Your task to perform on an android device: change the clock display to show seconds Image 0: 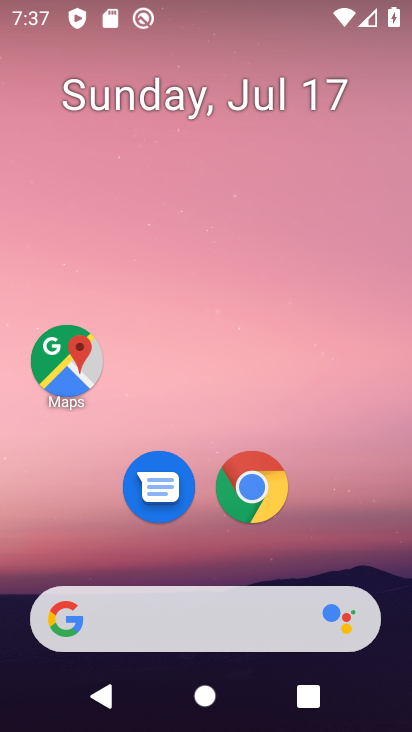
Step 0: drag from (92, 589) to (201, 30)
Your task to perform on an android device: change the clock display to show seconds Image 1: 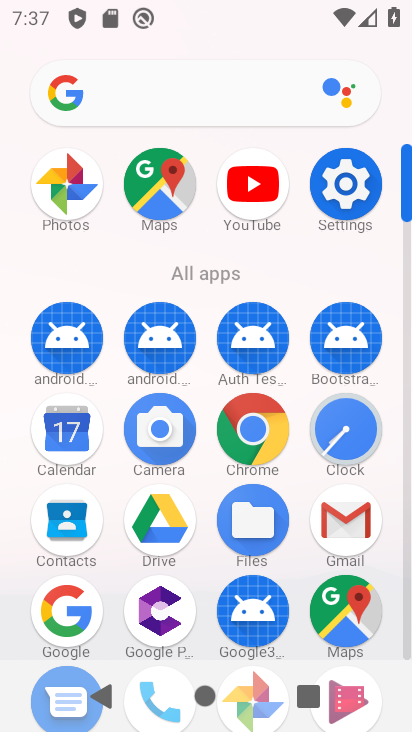
Step 1: click (352, 429)
Your task to perform on an android device: change the clock display to show seconds Image 2: 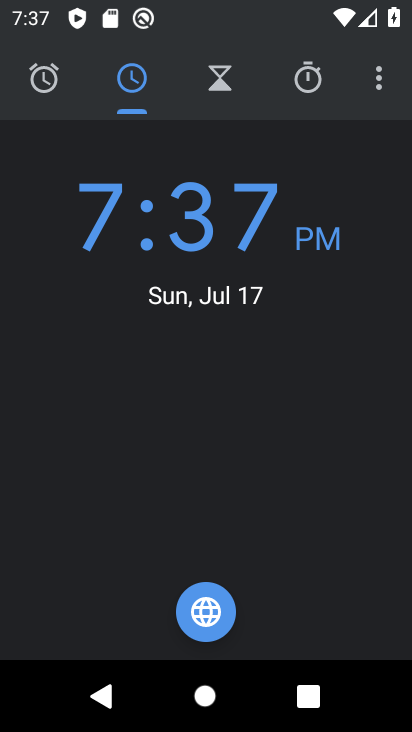
Step 2: click (371, 67)
Your task to perform on an android device: change the clock display to show seconds Image 3: 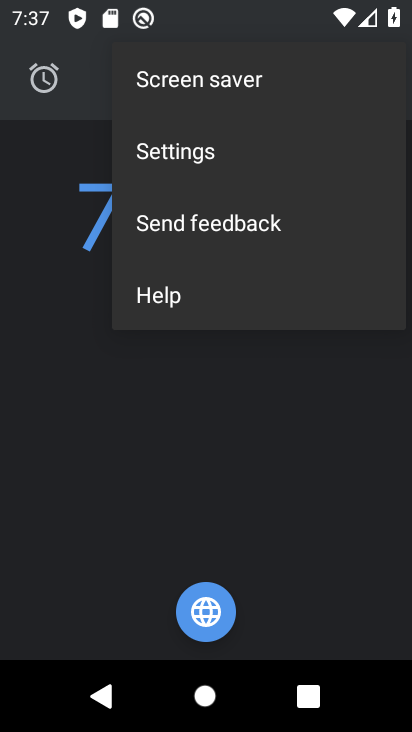
Step 3: click (206, 161)
Your task to perform on an android device: change the clock display to show seconds Image 4: 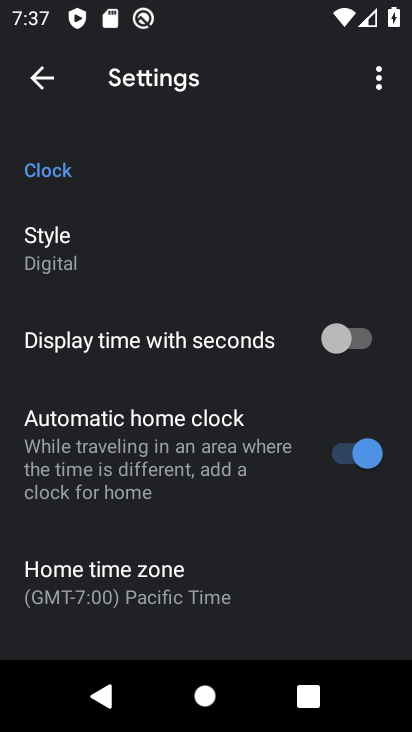
Step 4: click (82, 244)
Your task to perform on an android device: change the clock display to show seconds Image 5: 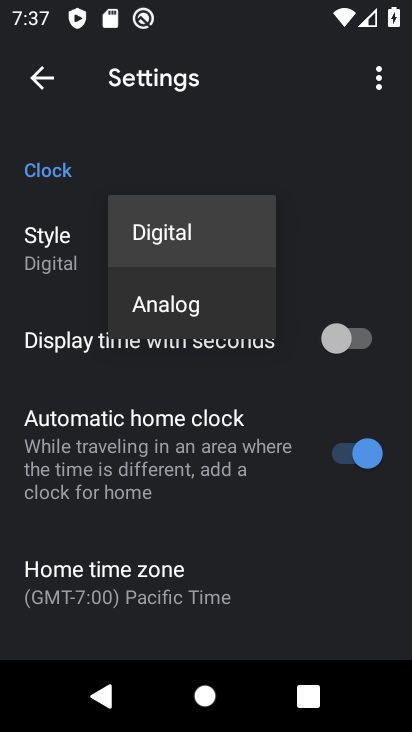
Step 5: click (164, 243)
Your task to perform on an android device: change the clock display to show seconds Image 6: 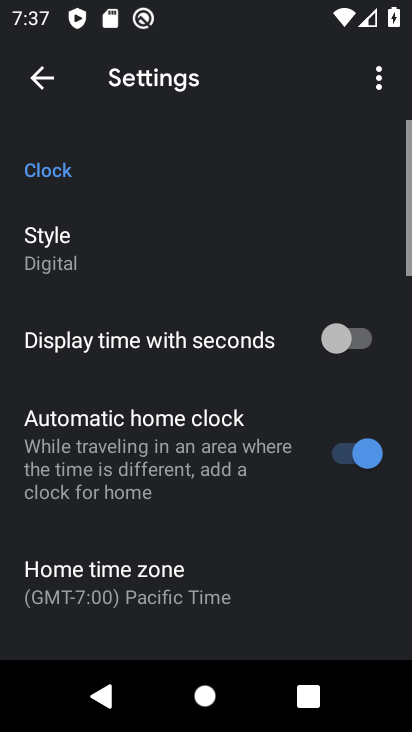
Step 6: click (344, 343)
Your task to perform on an android device: change the clock display to show seconds Image 7: 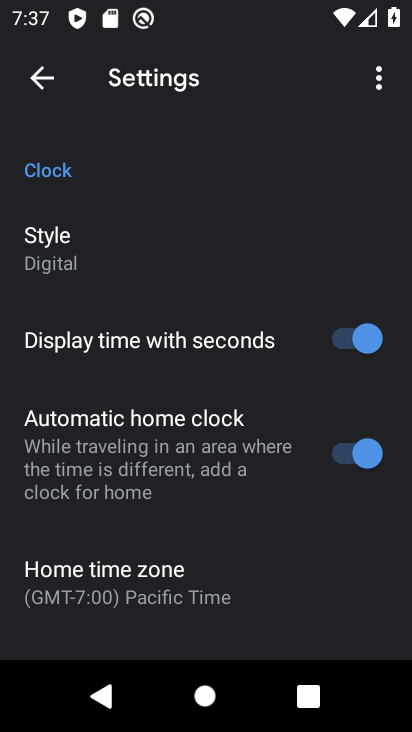
Step 7: task complete